Your task to perform on an android device: stop showing notifications on the lock screen Image 0: 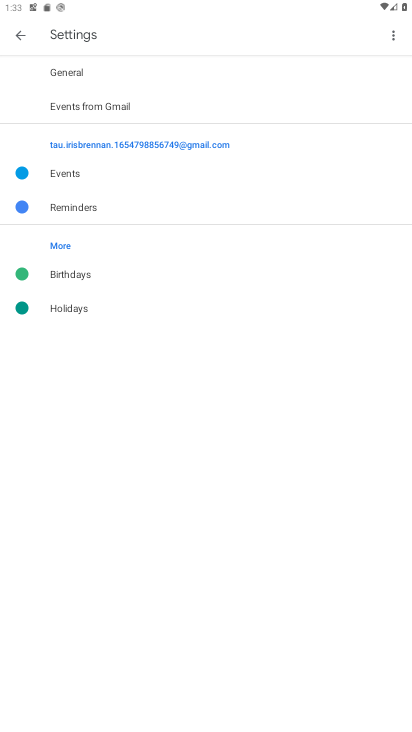
Step 0: click (318, 458)
Your task to perform on an android device: stop showing notifications on the lock screen Image 1: 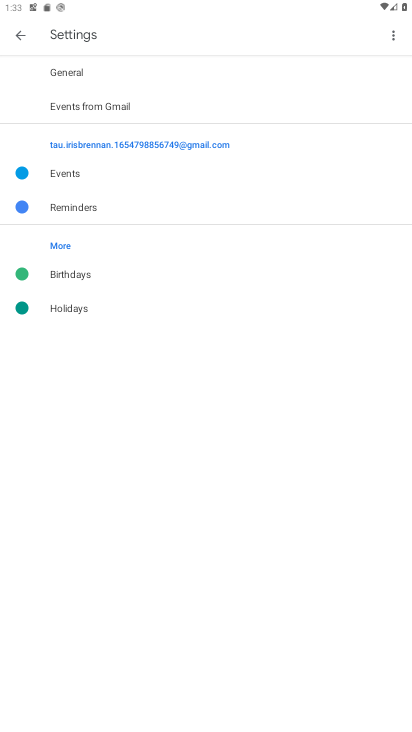
Step 1: press home button
Your task to perform on an android device: stop showing notifications on the lock screen Image 2: 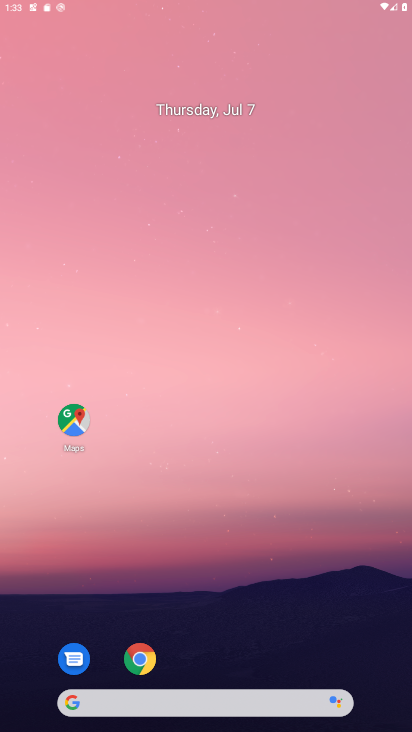
Step 2: drag from (104, 547) to (74, 0)
Your task to perform on an android device: stop showing notifications on the lock screen Image 3: 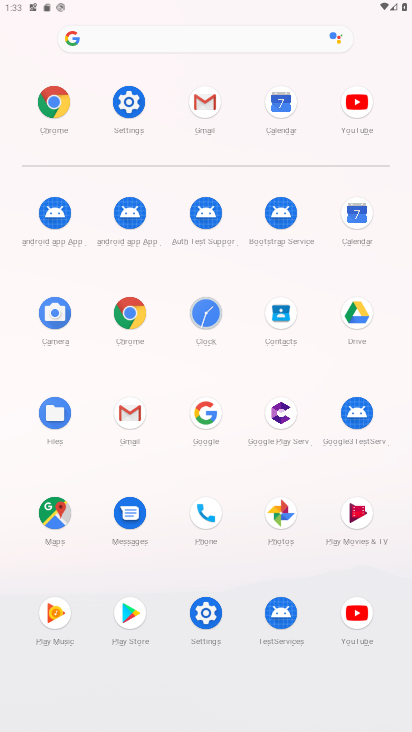
Step 3: click (125, 109)
Your task to perform on an android device: stop showing notifications on the lock screen Image 4: 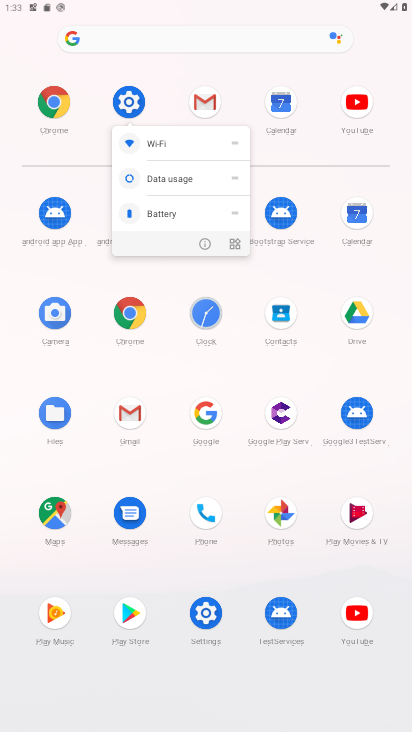
Step 4: click (203, 243)
Your task to perform on an android device: stop showing notifications on the lock screen Image 5: 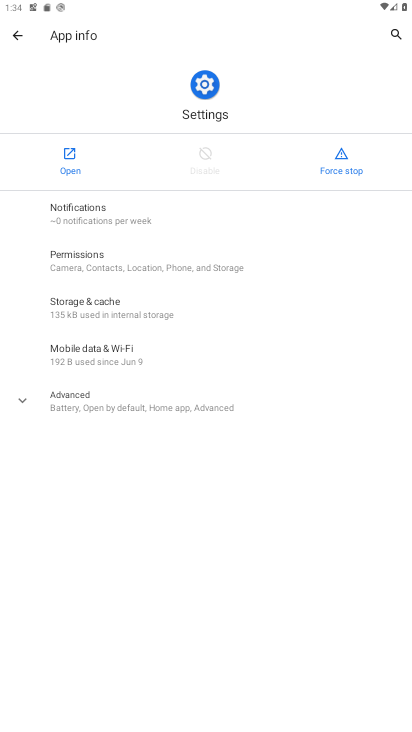
Step 5: click (69, 151)
Your task to perform on an android device: stop showing notifications on the lock screen Image 6: 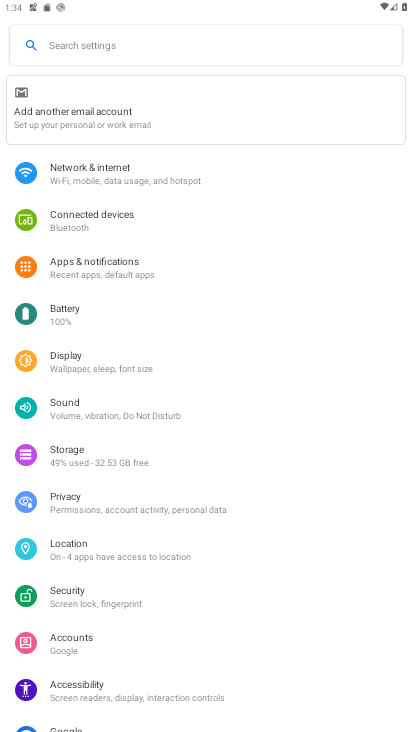
Step 6: click (107, 268)
Your task to perform on an android device: stop showing notifications on the lock screen Image 7: 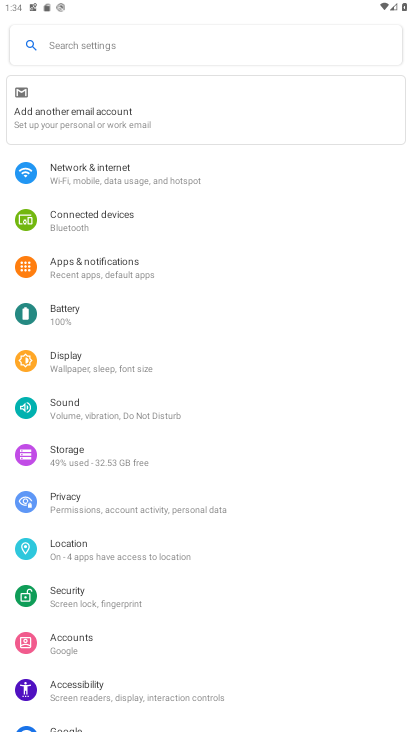
Step 7: click (107, 268)
Your task to perform on an android device: stop showing notifications on the lock screen Image 8: 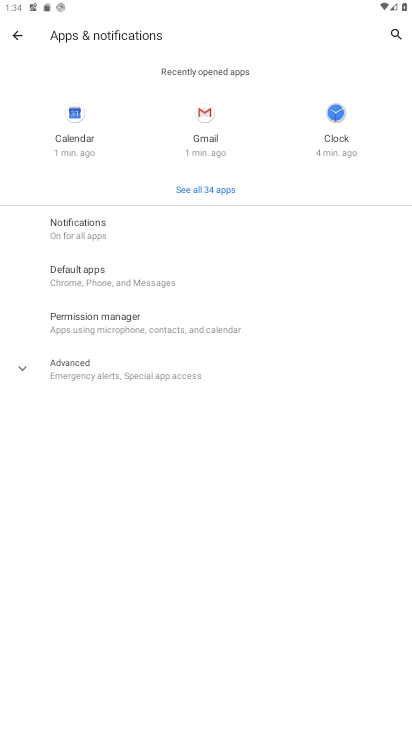
Step 8: click (100, 216)
Your task to perform on an android device: stop showing notifications on the lock screen Image 9: 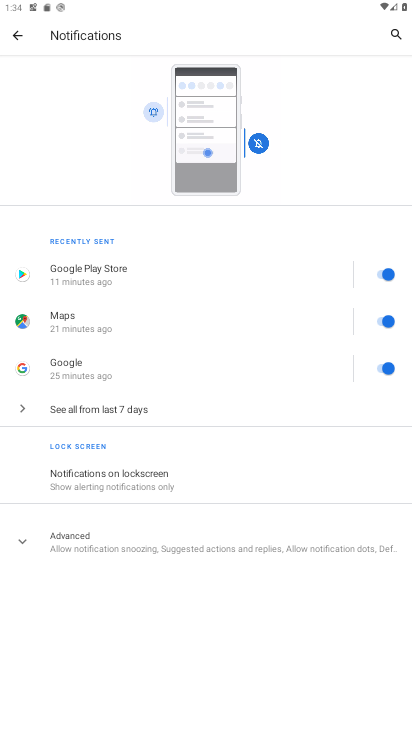
Step 9: click (140, 486)
Your task to perform on an android device: stop showing notifications on the lock screen Image 10: 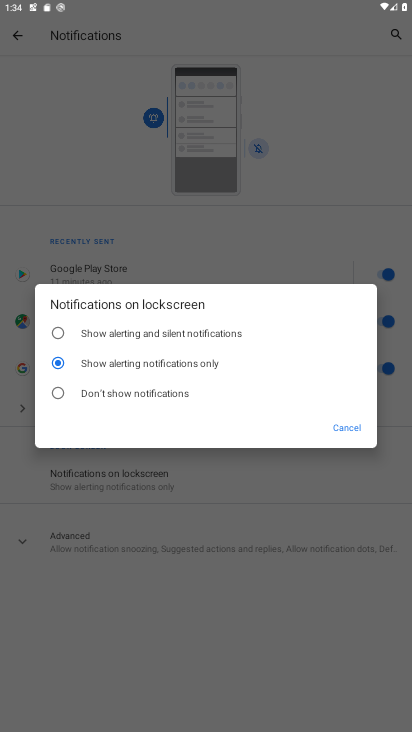
Step 10: click (68, 337)
Your task to perform on an android device: stop showing notifications on the lock screen Image 11: 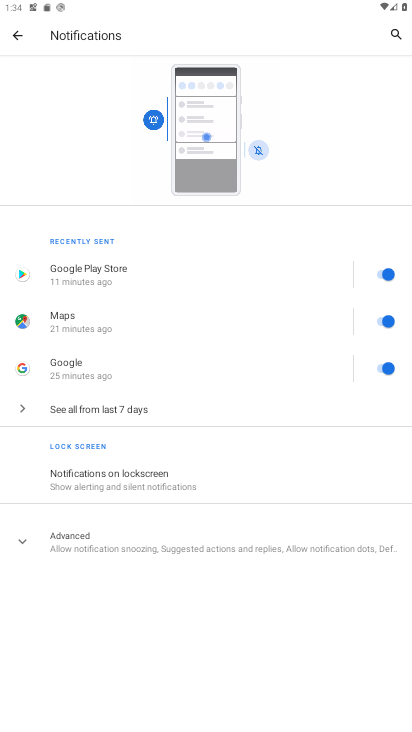
Step 11: task complete